Your task to perform on an android device: Open the calendar and show me this week's events? Image 0: 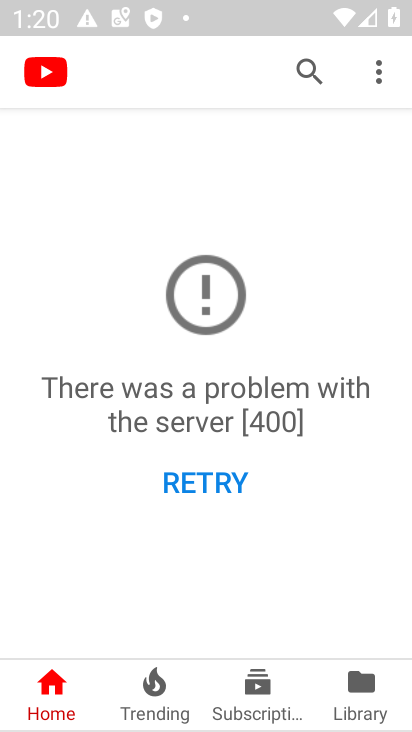
Step 0: press home button
Your task to perform on an android device: Open the calendar and show me this week's events? Image 1: 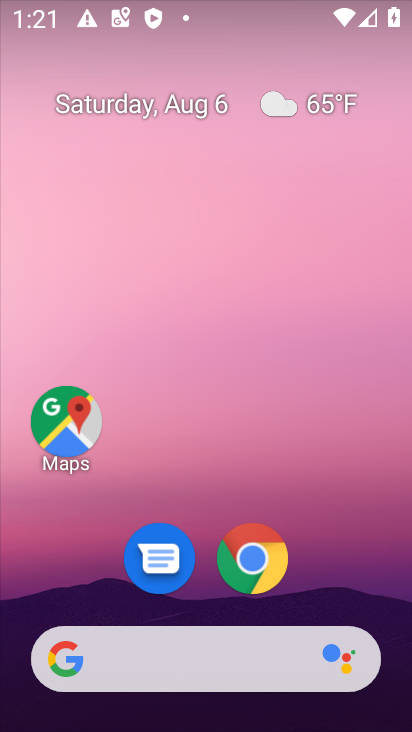
Step 1: drag from (249, 654) to (210, 309)
Your task to perform on an android device: Open the calendar and show me this week's events? Image 2: 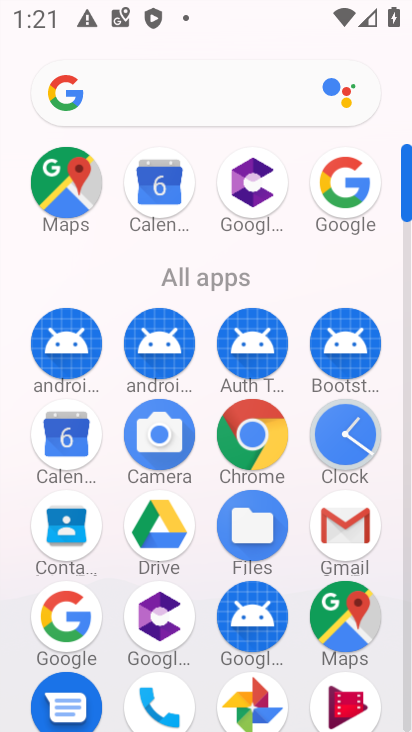
Step 2: click (68, 441)
Your task to perform on an android device: Open the calendar and show me this week's events? Image 3: 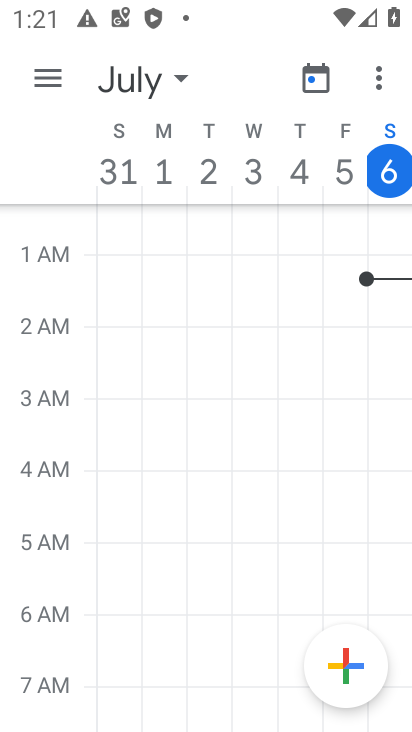
Step 3: task complete